Your task to perform on an android device: Check the weather Image 0: 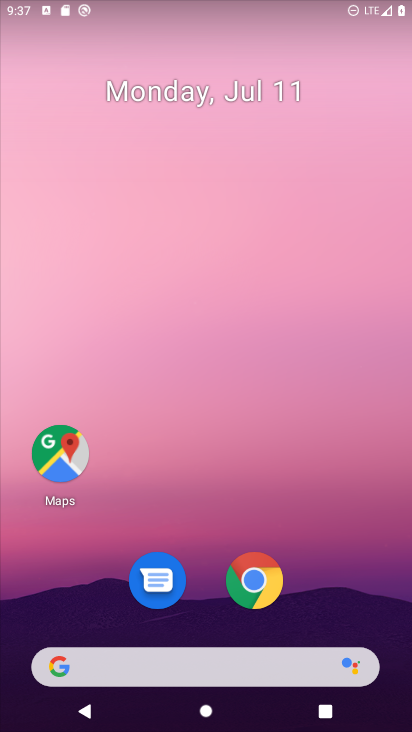
Step 0: drag from (299, 532) to (273, 388)
Your task to perform on an android device: Check the weather Image 1: 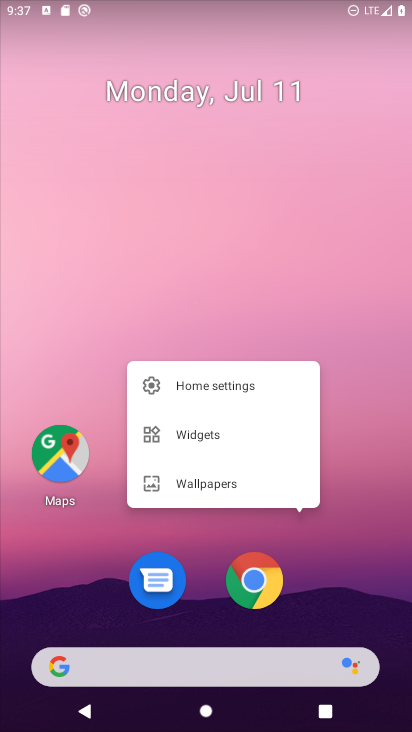
Step 1: click (214, 679)
Your task to perform on an android device: Check the weather Image 2: 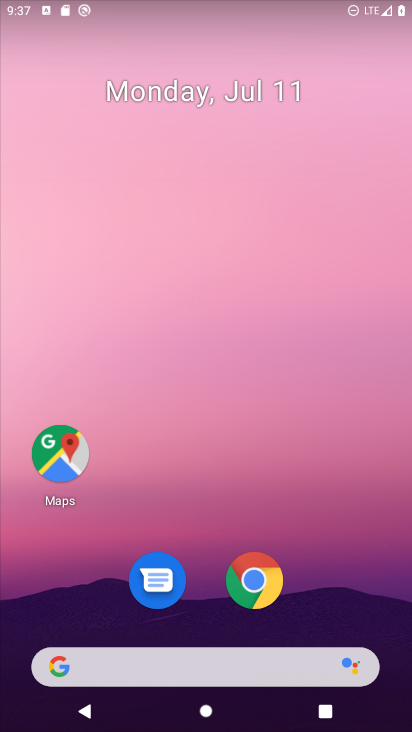
Step 2: click (207, 665)
Your task to perform on an android device: Check the weather Image 3: 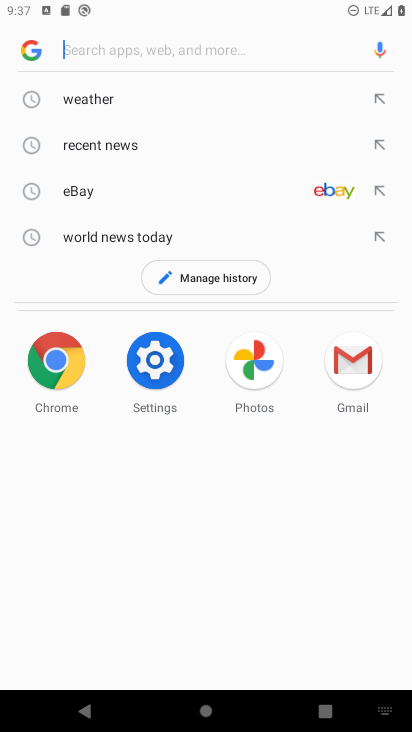
Step 3: click (97, 96)
Your task to perform on an android device: Check the weather Image 4: 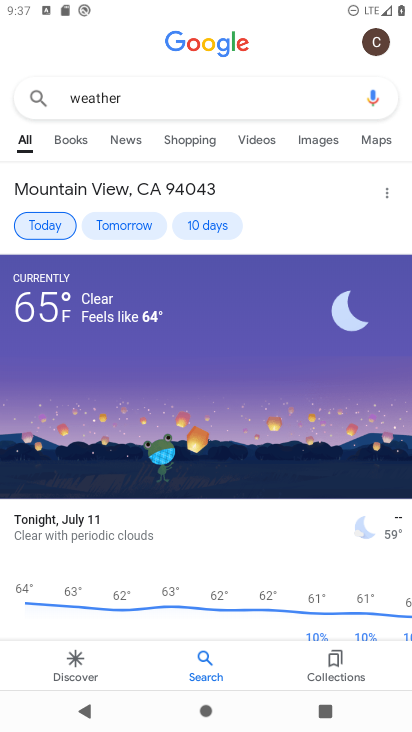
Step 4: click (47, 216)
Your task to perform on an android device: Check the weather Image 5: 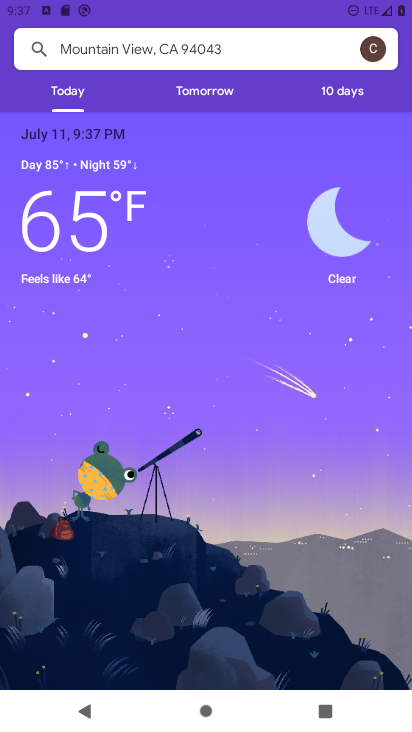
Step 5: task complete